Your task to perform on an android device: uninstall "Google News" Image 0: 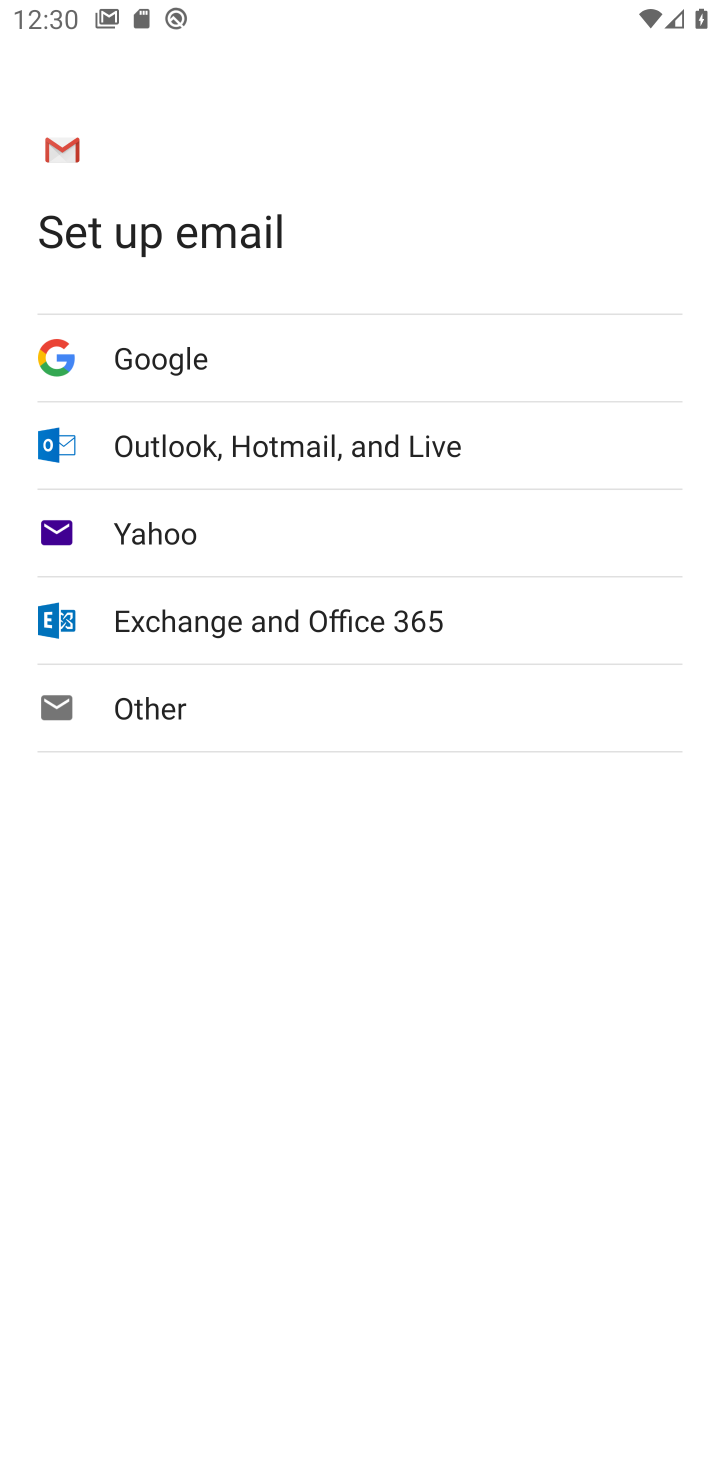
Step 0: press home button
Your task to perform on an android device: uninstall "Google News" Image 1: 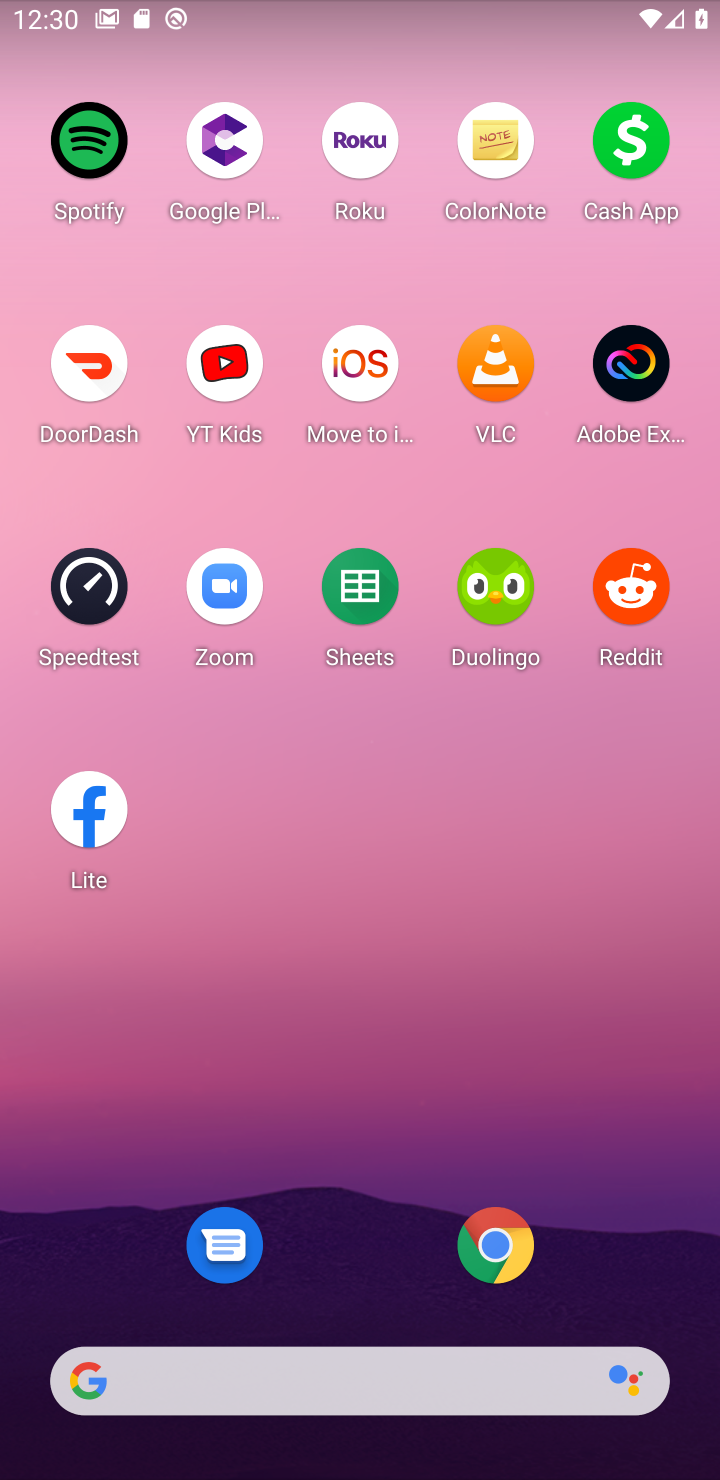
Step 1: press home button
Your task to perform on an android device: uninstall "Google News" Image 2: 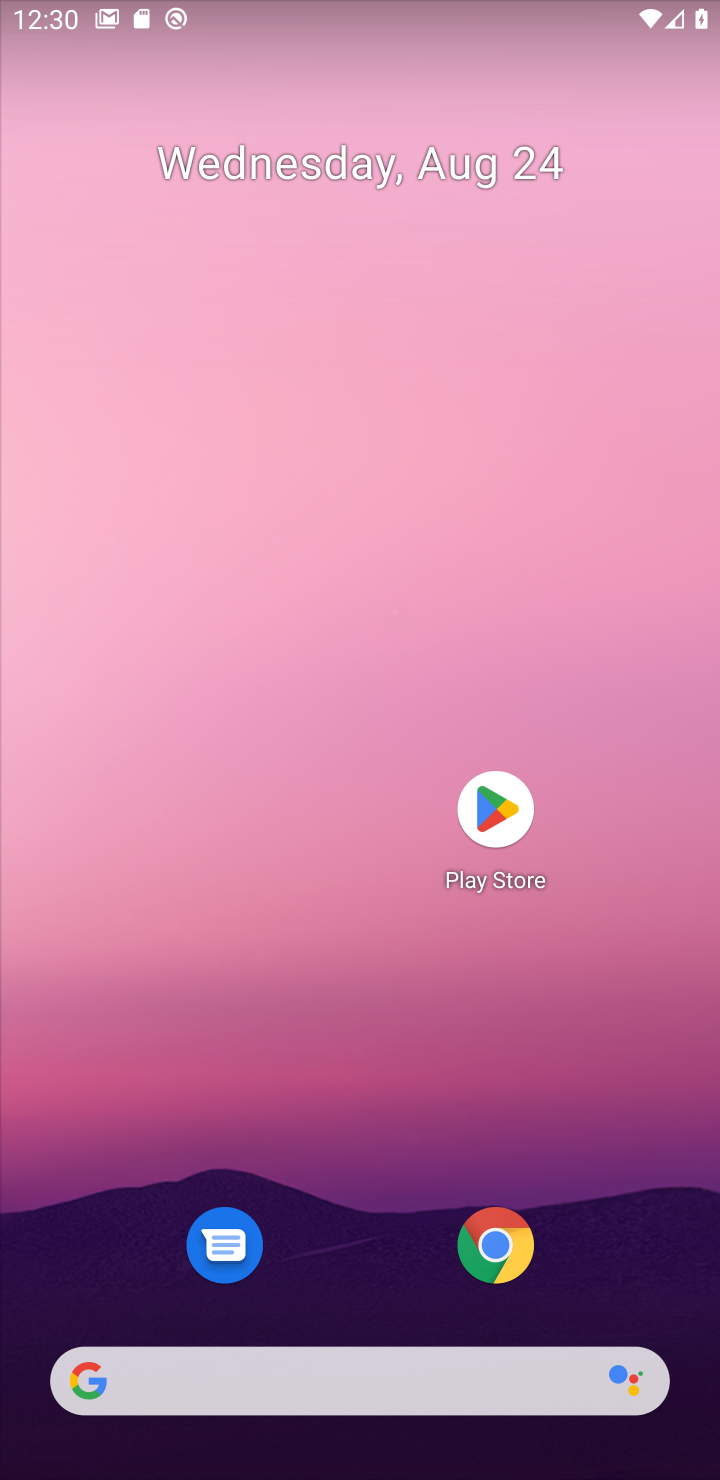
Step 2: click (502, 803)
Your task to perform on an android device: uninstall "Google News" Image 3: 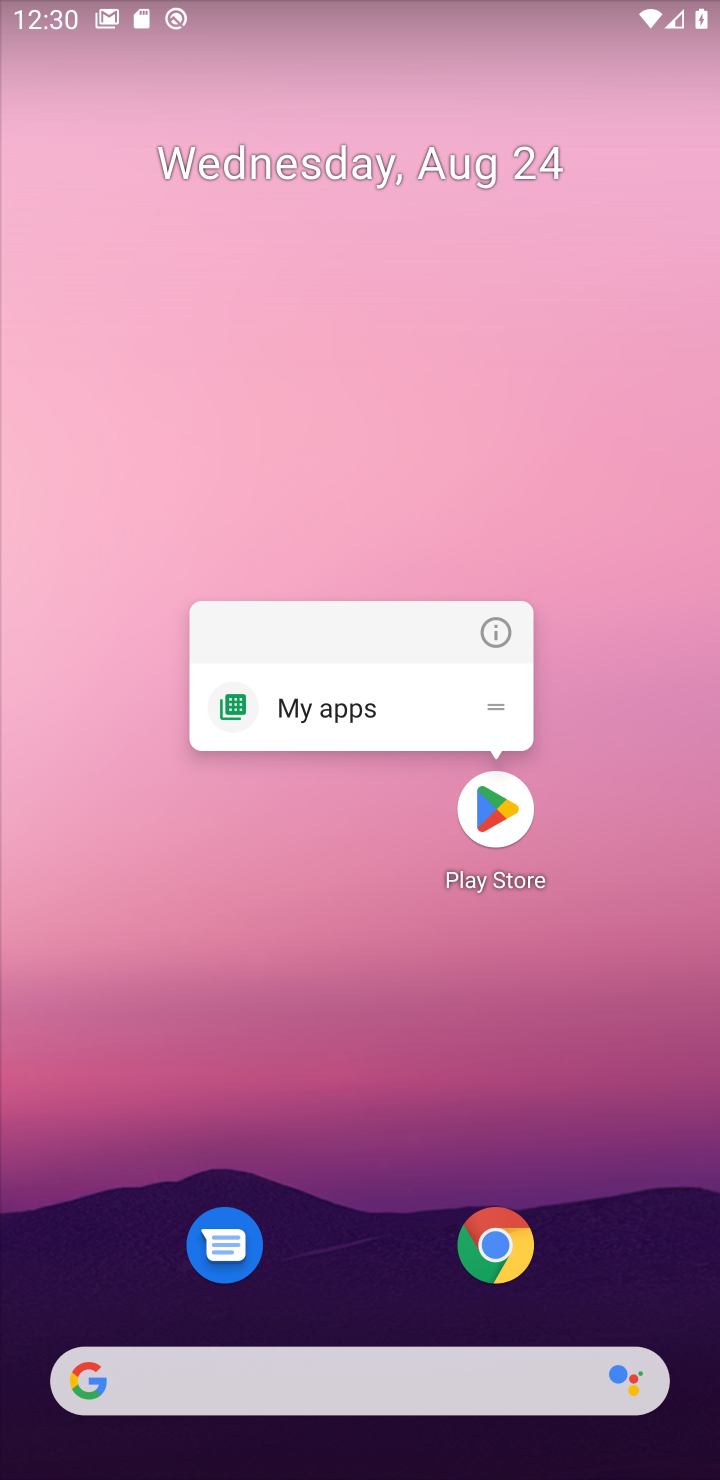
Step 3: click (502, 810)
Your task to perform on an android device: uninstall "Google News" Image 4: 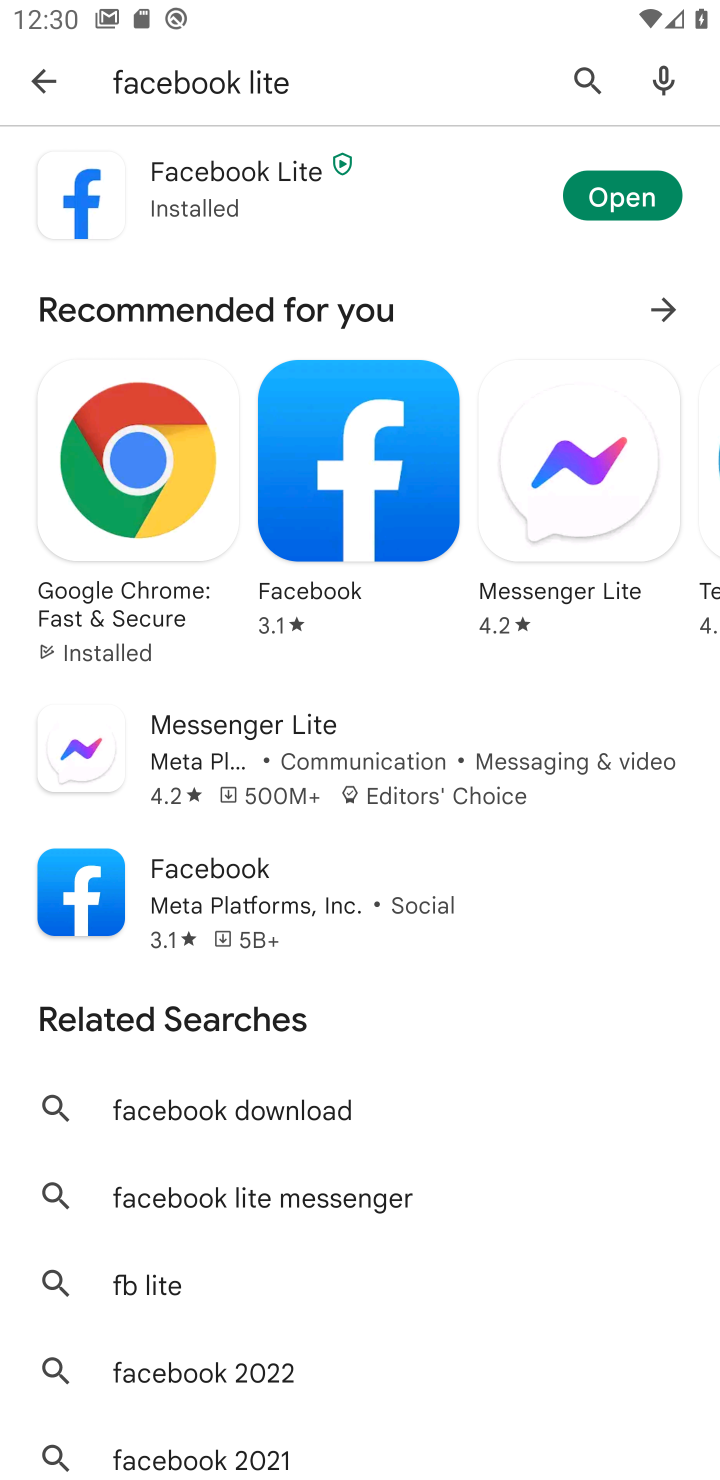
Step 4: click (595, 68)
Your task to perform on an android device: uninstall "Google News" Image 5: 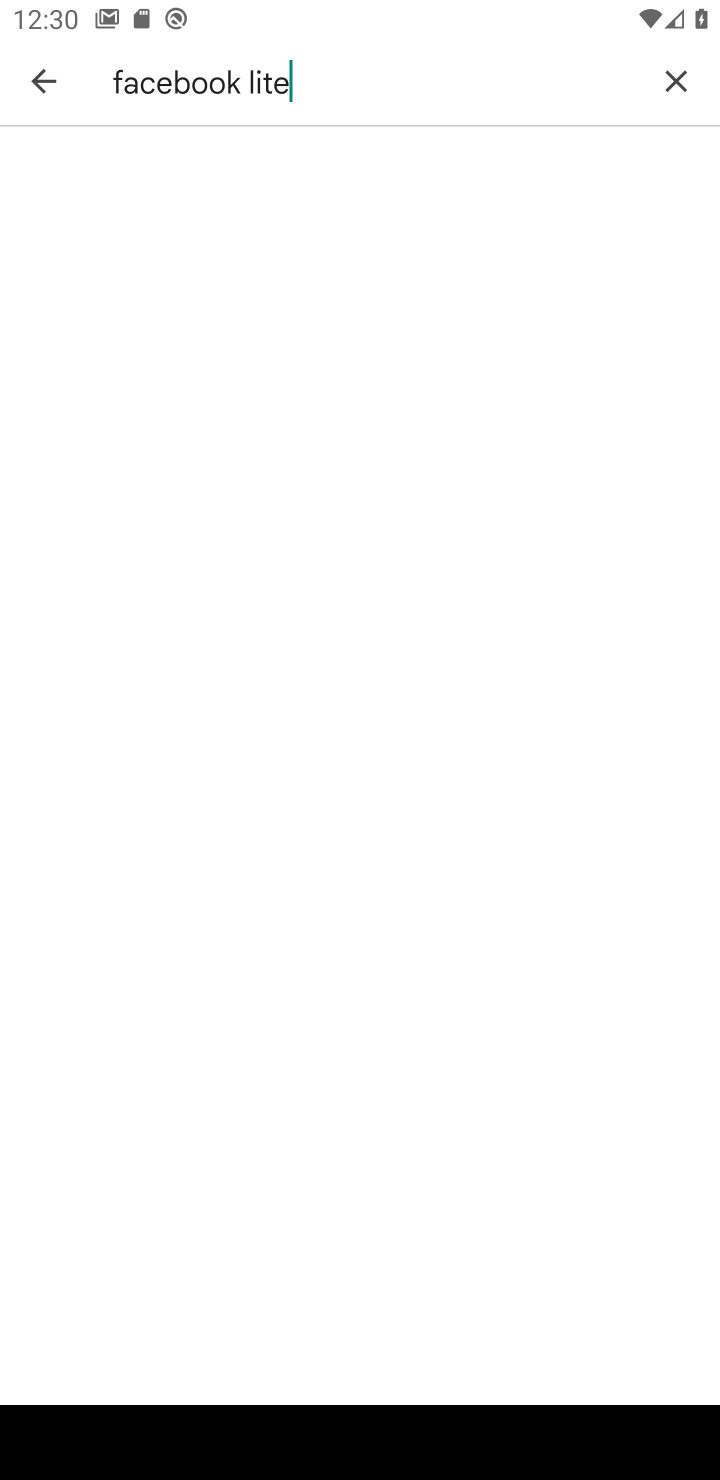
Step 5: click (678, 71)
Your task to perform on an android device: uninstall "Google News" Image 6: 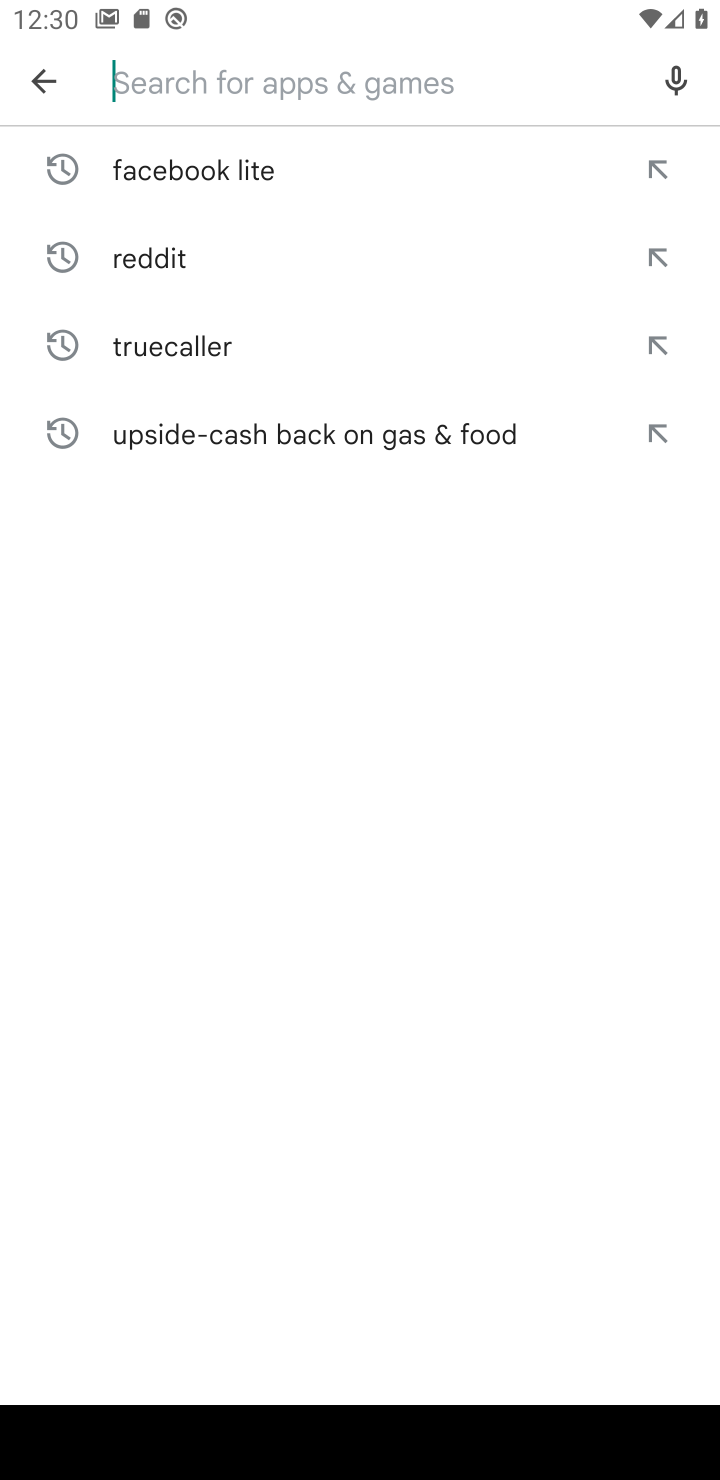
Step 6: type "Google News"
Your task to perform on an android device: uninstall "Google News" Image 7: 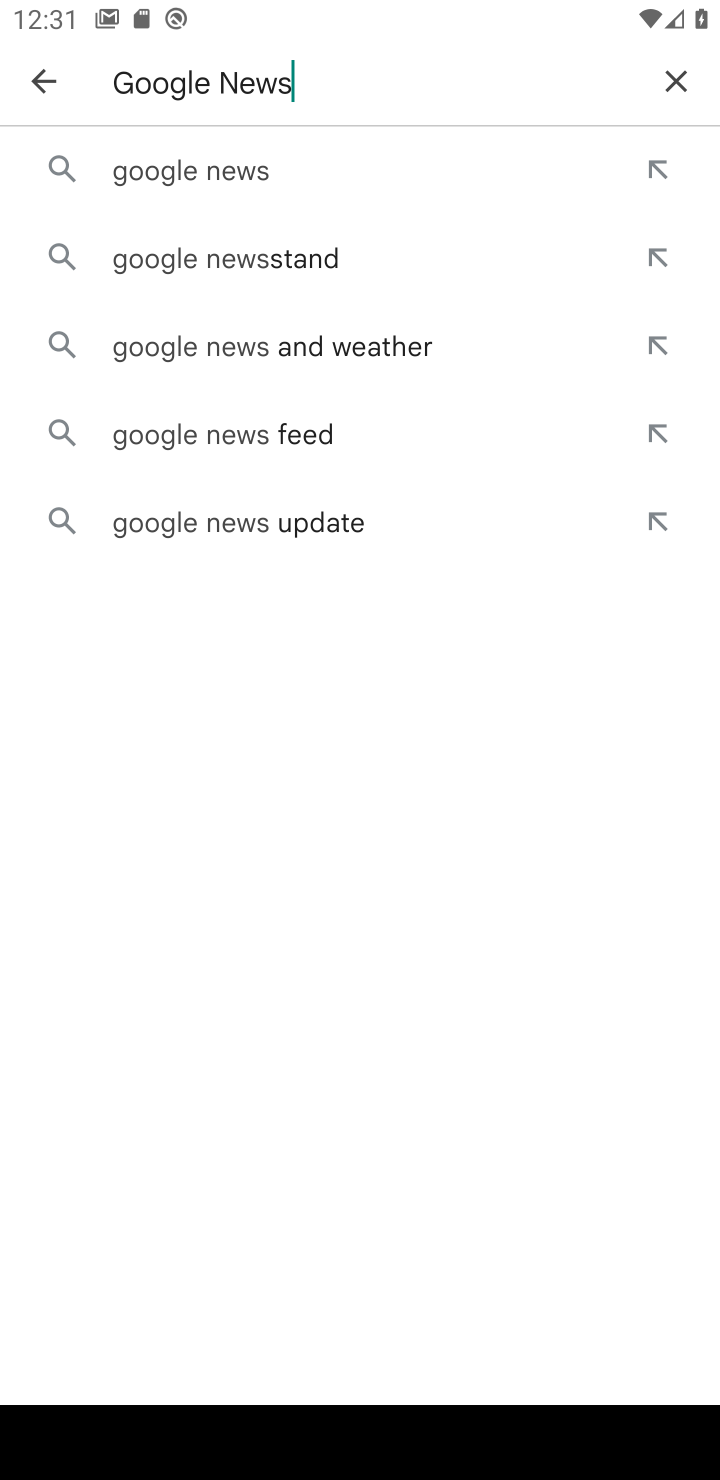
Step 7: click (241, 175)
Your task to perform on an android device: uninstall "Google News" Image 8: 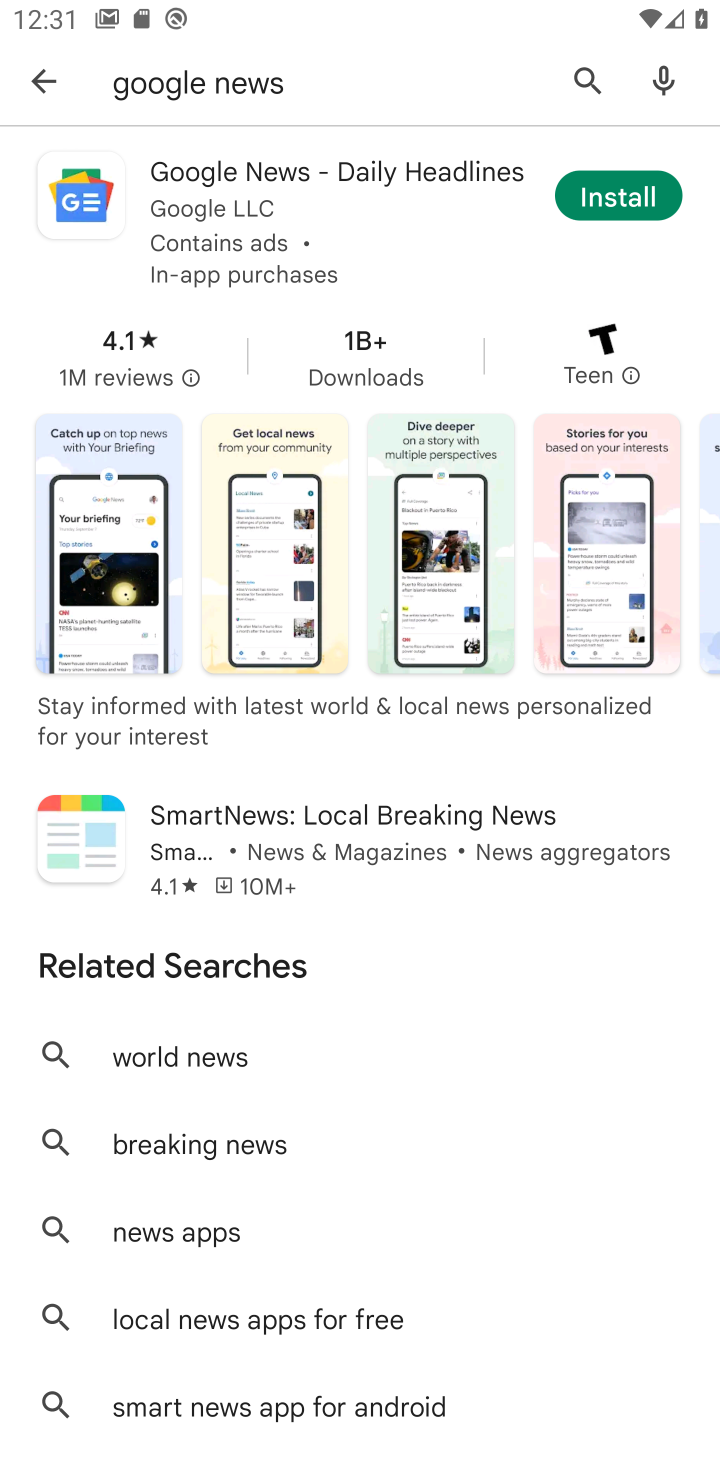
Step 8: task complete